Your task to perform on an android device: Open Google Chrome and open the bookmarks view Image 0: 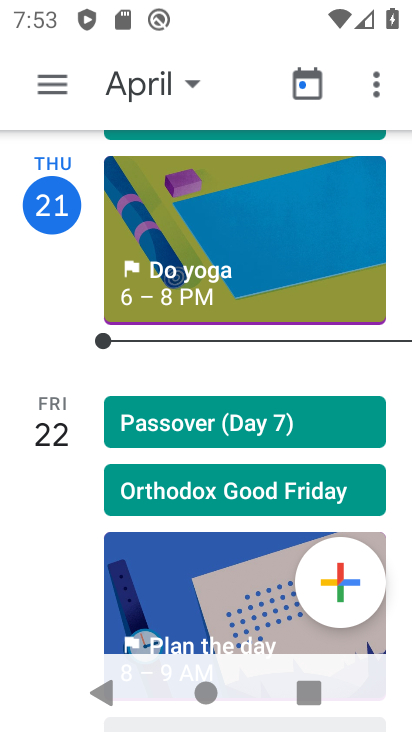
Step 0: press home button
Your task to perform on an android device: Open Google Chrome and open the bookmarks view Image 1: 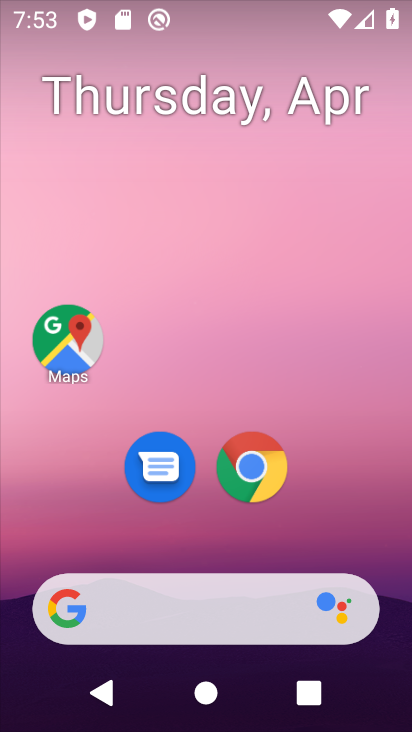
Step 1: click (241, 482)
Your task to perform on an android device: Open Google Chrome and open the bookmarks view Image 2: 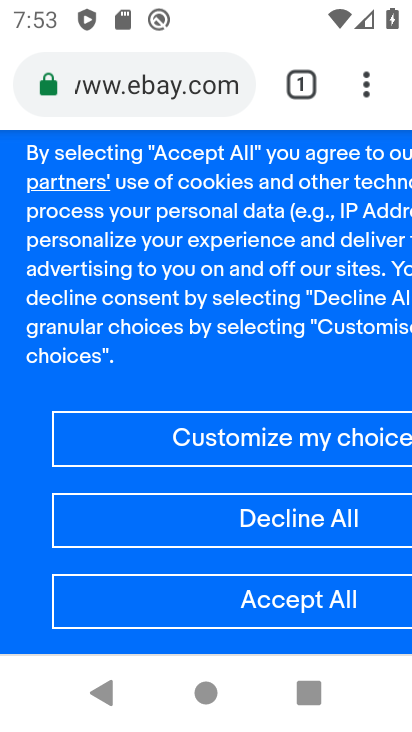
Step 2: click (363, 96)
Your task to perform on an android device: Open Google Chrome and open the bookmarks view Image 3: 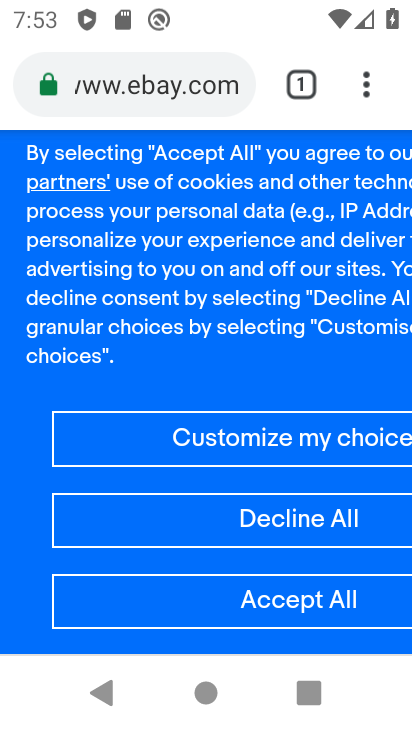
Step 3: drag from (354, 83) to (139, 343)
Your task to perform on an android device: Open Google Chrome and open the bookmarks view Image 4: 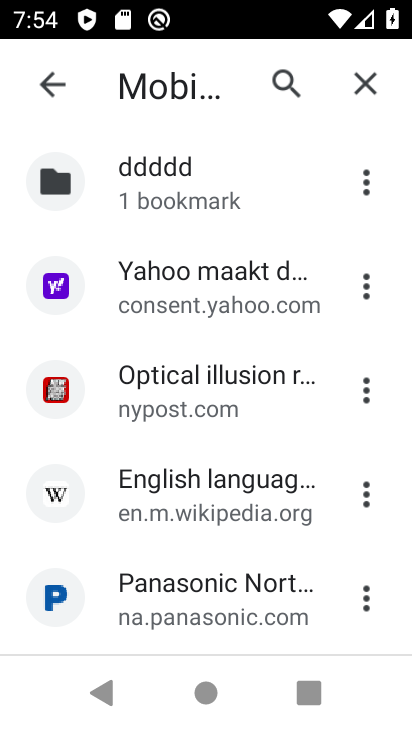
Step 4: click (228, 366)
Your task to perform on an android device: Open Google Chrome and open the bookmarks view Image 5: 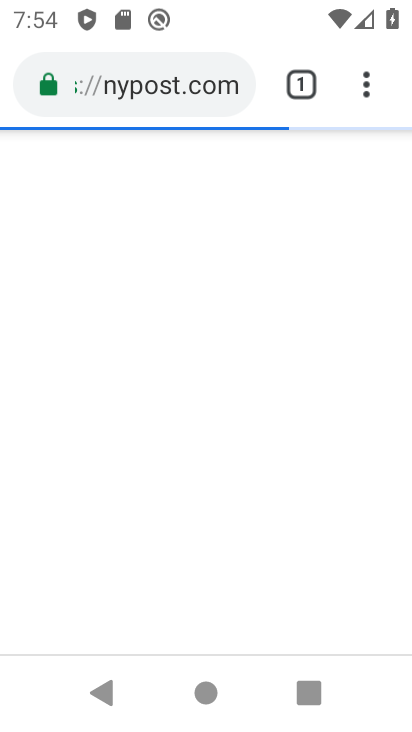
Step 5: task complete